Your task to perform on an android device: toggle sleep mode Image 0: 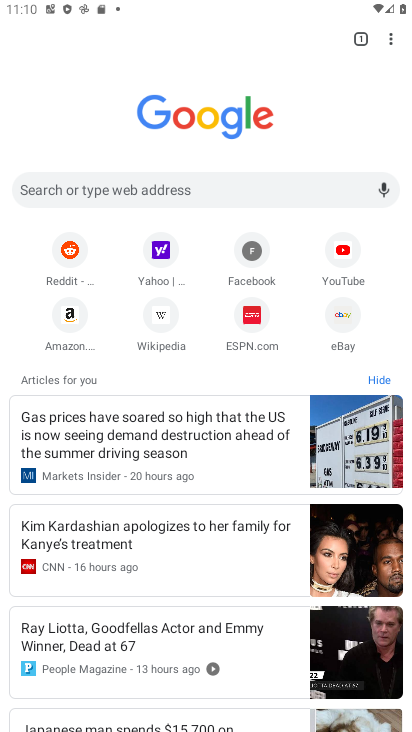
Step 0: press home button
Your task to perform on an android device: toggle sleep mode Image 1: 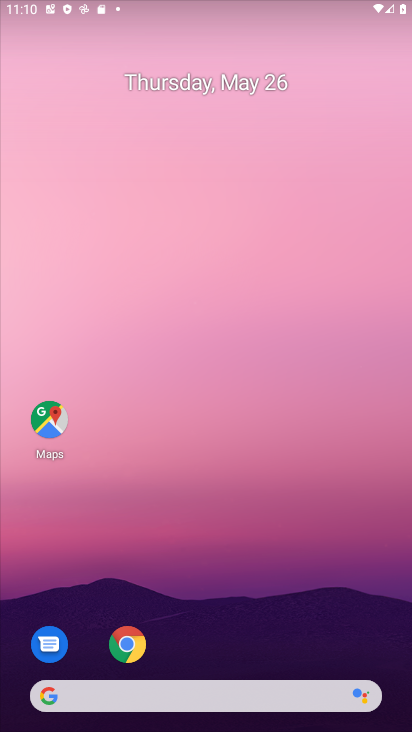
Step 1: drag from (330, 636) to (224, 10)
Your task to perform on an android device: toggle sleep mode Image 2: 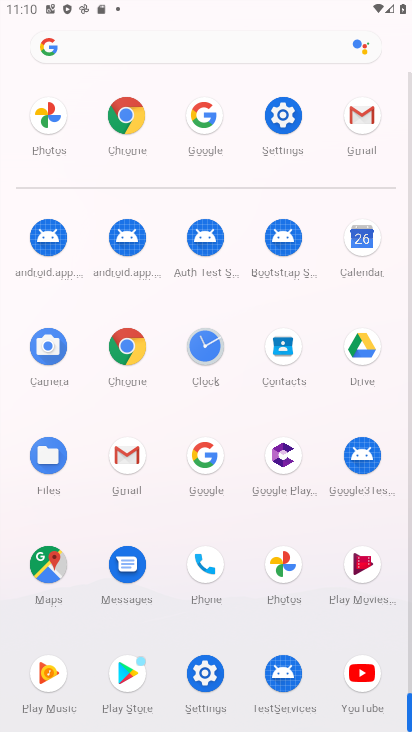
Step 2: click (291, 117)
Your task to perform on an android device: toggle sleep mode Image 3: 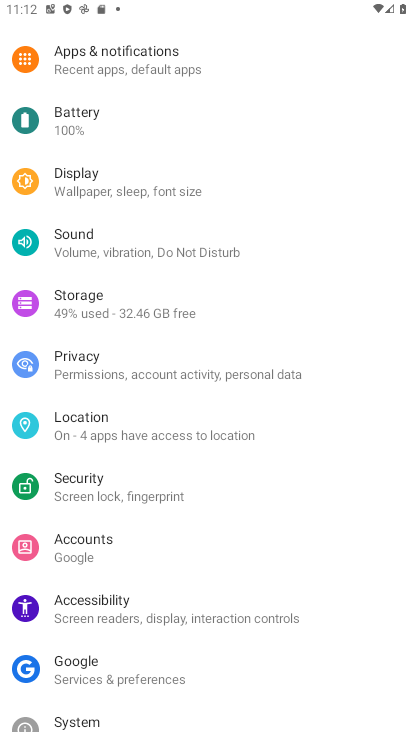
Step 3: task complete